Your task to perform on an android device: turn on notifications settings in the gmail app Image 0: 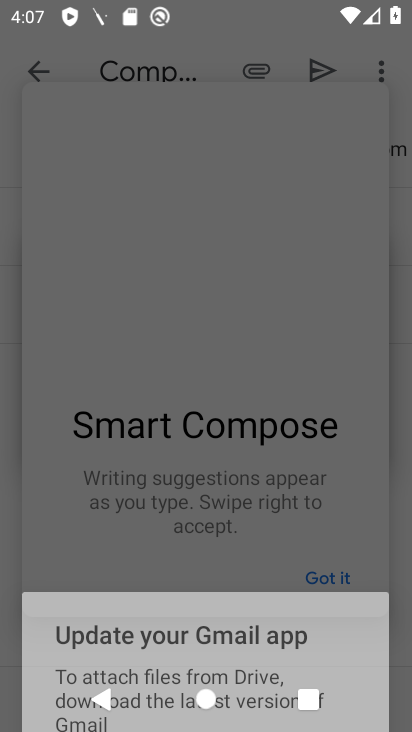
Step 0: press home button
Your task to perform on an android device: turn on notifications settings in the gmail app Image 1: 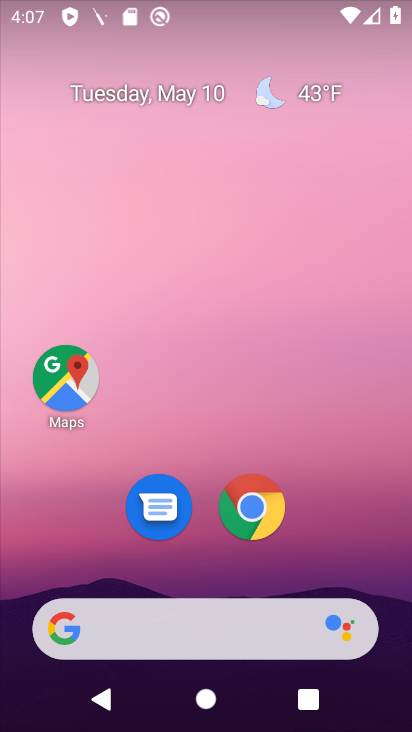
Step 1: drag from (213, 602) to (323, 53)
Your task to perform on an android device: turn on notifications settings in the gmail app Image 2: 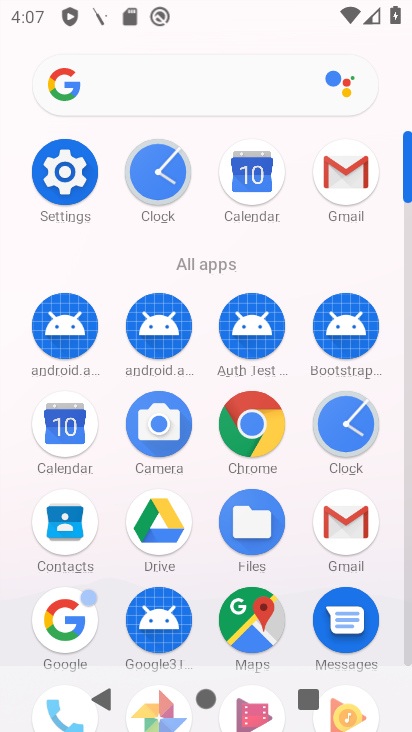
Step 2: click (325, 159)
Your task to perform on an android device: turn on notifications settings in the gmail app Image 3: 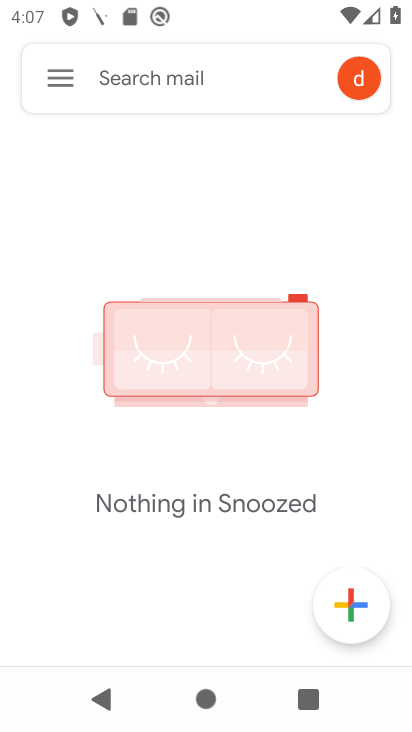
Step 3: click (59, 87)
Your task to perform on an android device: turn on notifications settings in the gmail app Image 4: 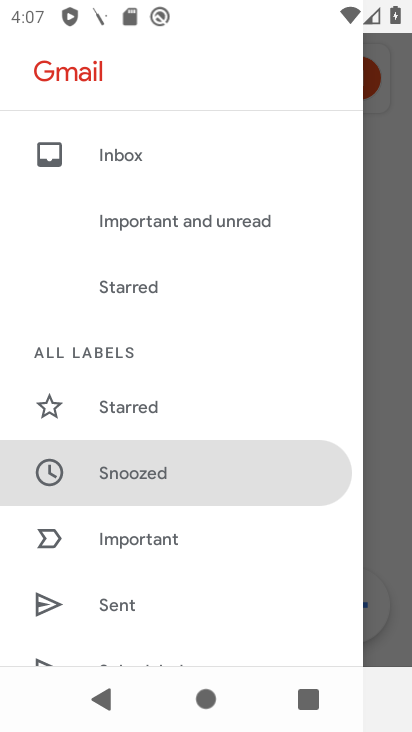
Step 4: drag from (94, 570) to (194, 154)
Your task to perform on an android device: turn on notifications settings in the gmail app Image 5: 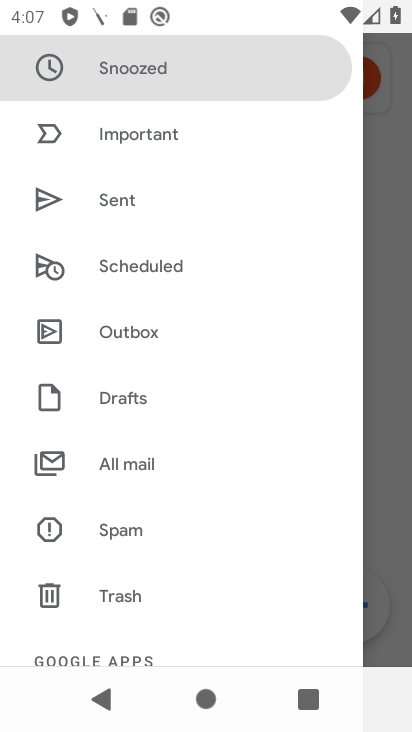
Step 5: drag from (94, 590) to (197, 236)
Your task to perform on an android device: turn on notifications settings in the gmail app Image 6: 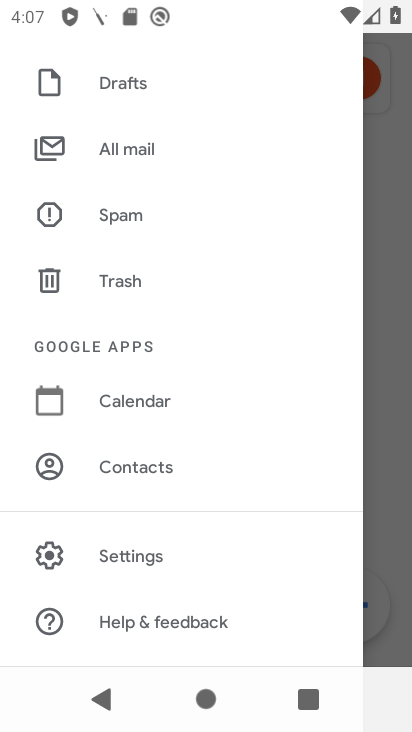
Step 6: click (108, 564)
Your task to perform on an android device: turn on notifications settings in the gmail app Image 7: 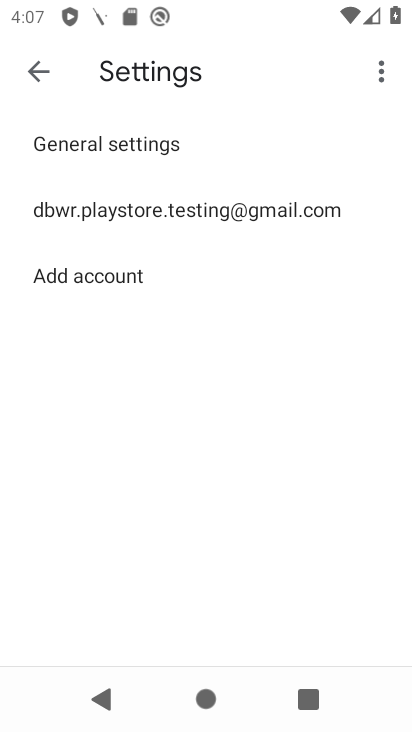
Step 7: click (120, 224)
Your task to perform on an android device: turn on notifications settings in the gmail app Image 8: 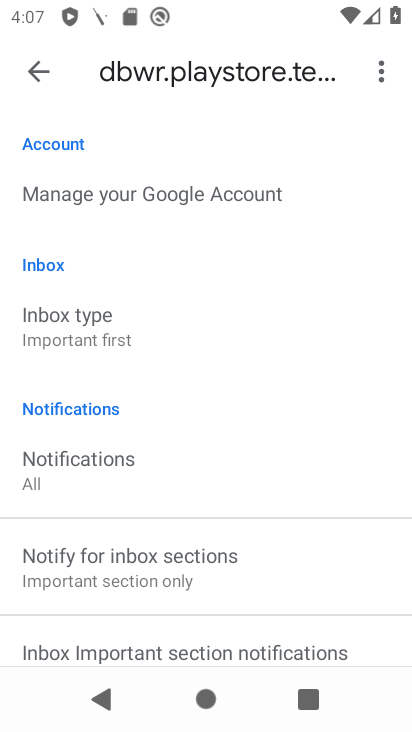
Step 8: drag from (115, 446) to (191, 196)
Your task to perform on an android device: turn on notifications settings in the gmail app Image 9: 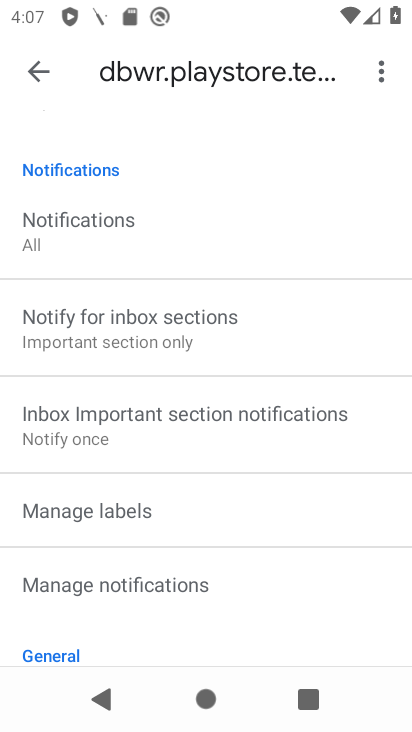
Step 9: click (72, 590)
Your task to perform on an android device: turn on notifications settings in the gmail app Image 10: 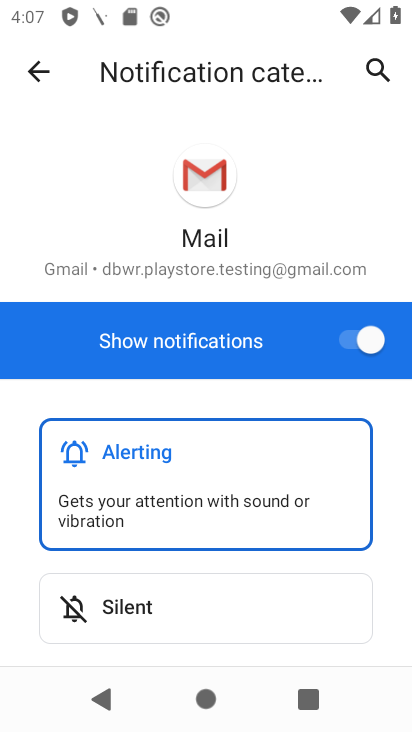
Step 10: click (352, 344)
Your task to perform on an android device: turn on notifications settings in the gmail app Image 11: 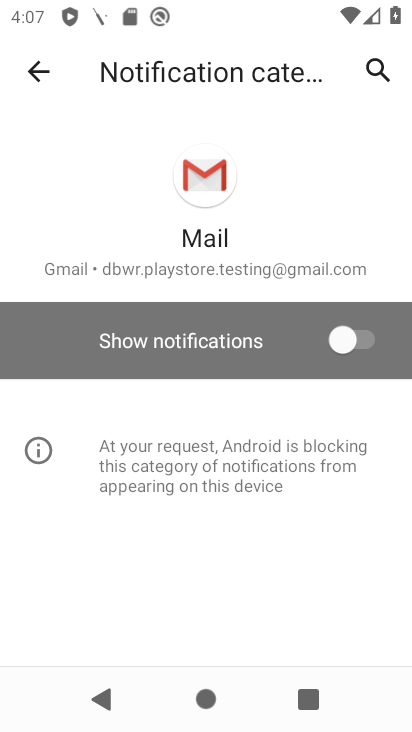
Step 11: click (354, 344)
Your task to perform on an android device: turn on notifications settings in the gmail app Image 12: 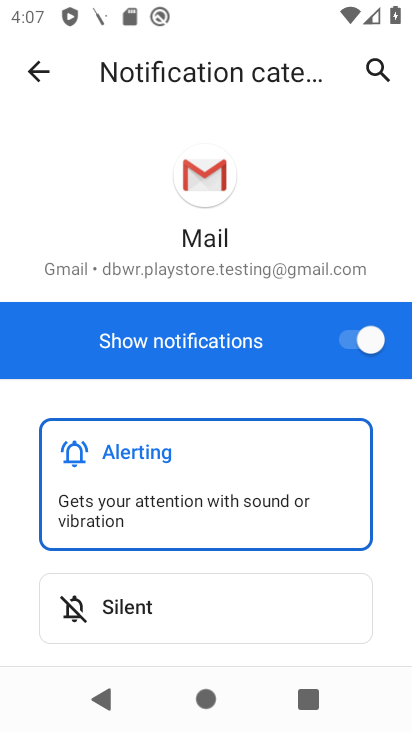
Step 12: task complete